Your task to perform on an android device: Open settings on Google Maps Image 0: 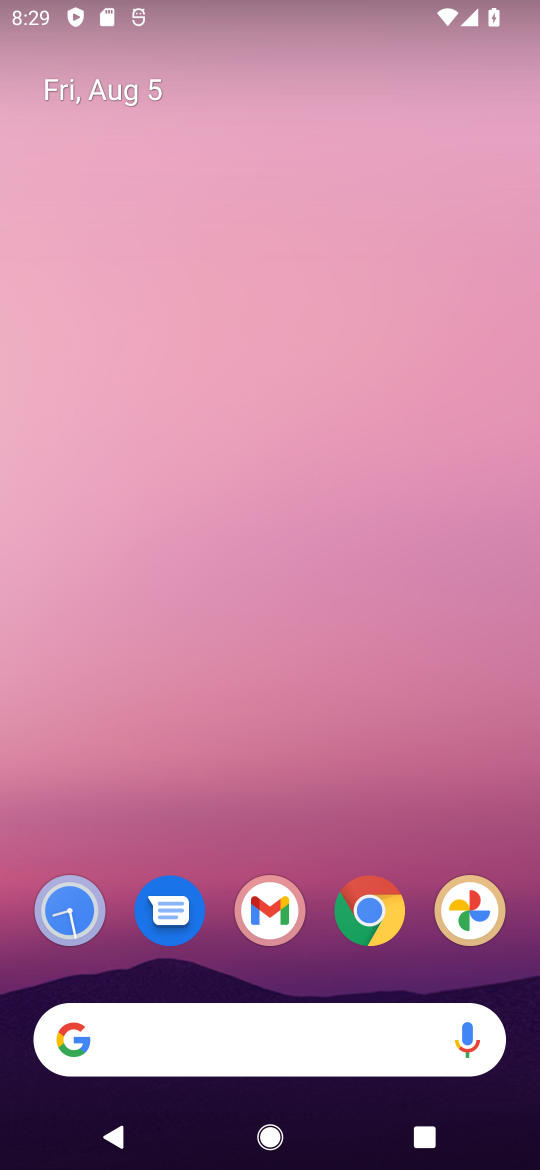
Step 0: drag from (214, 1034) to (451, 9)
Your task to perform on an android device: Open settings on Google Maps Image 1: 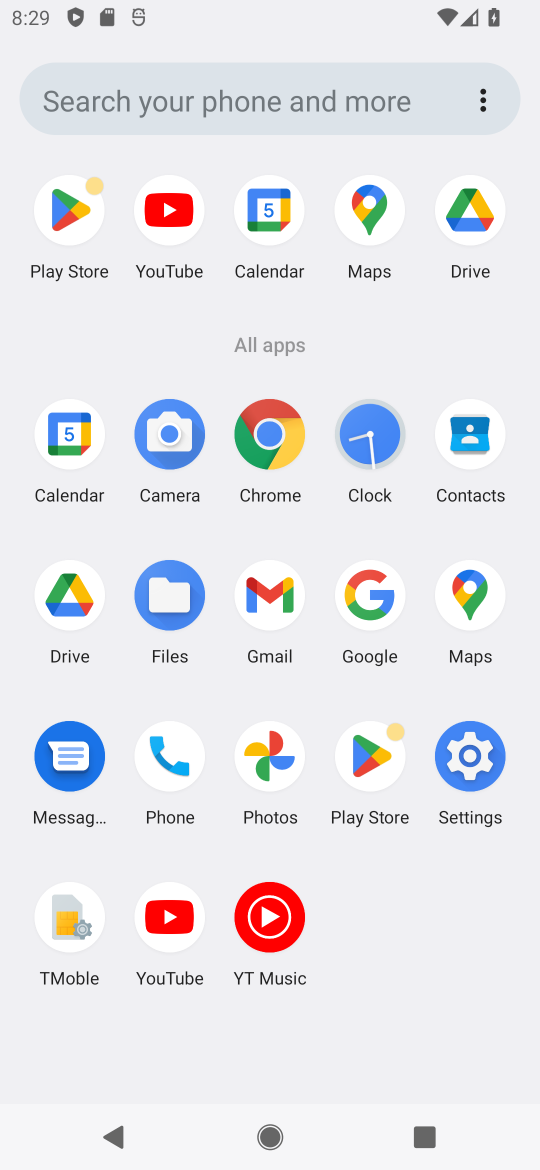
Step 1: click (469, 592)
Your task to perform on an android device: Open settings on Google Maps Image 2: 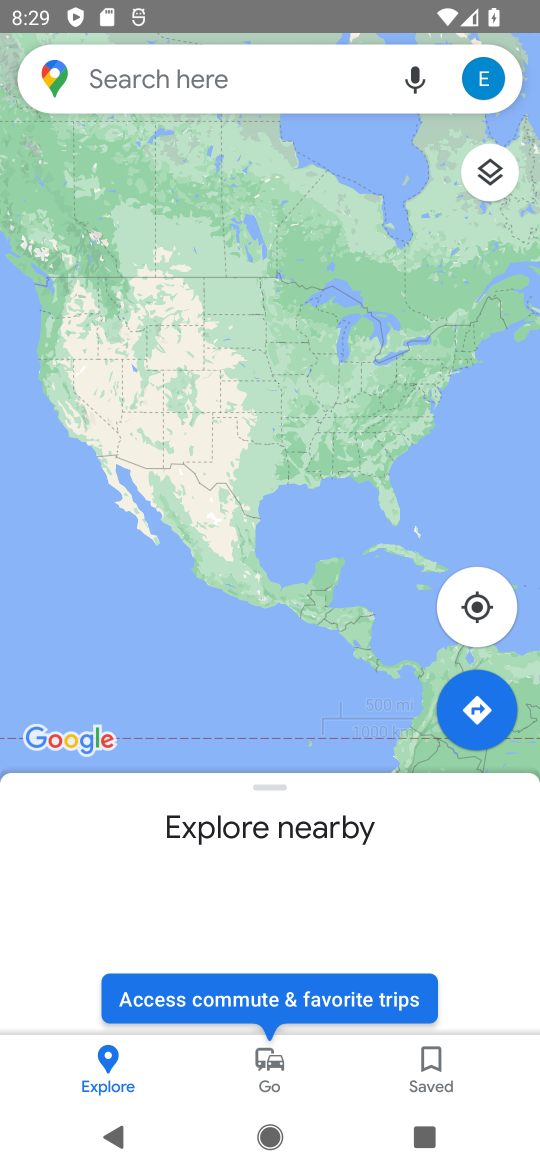
Step 2: click (479, 79)
Your task to perform on an android device: Open settings on Google Maps Image 3: 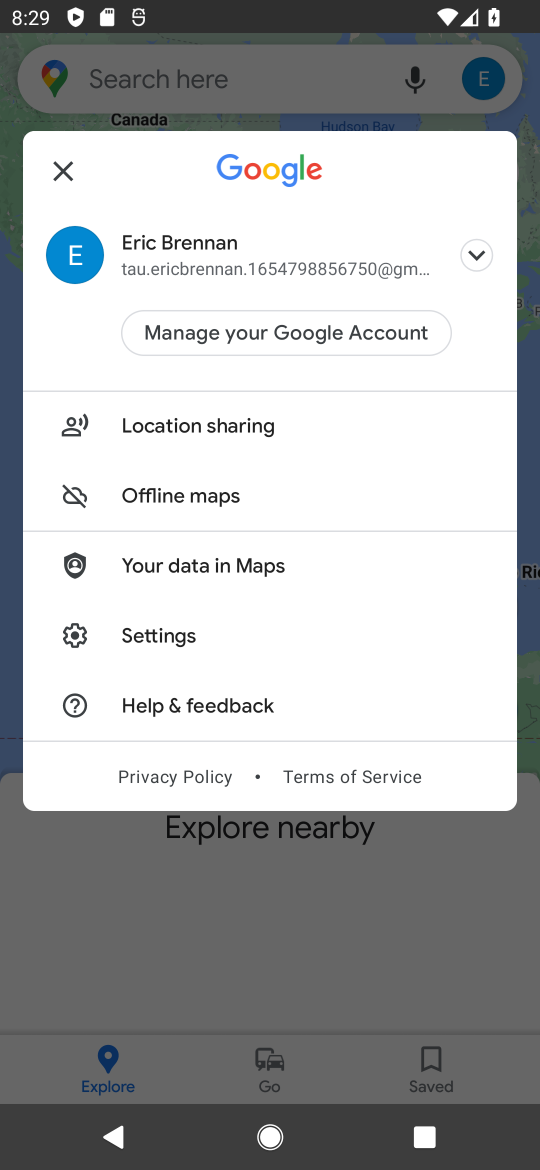
Step 3: click (175, 634)
Your task to perform on an android device: Open settings on Google Maps Image 4: 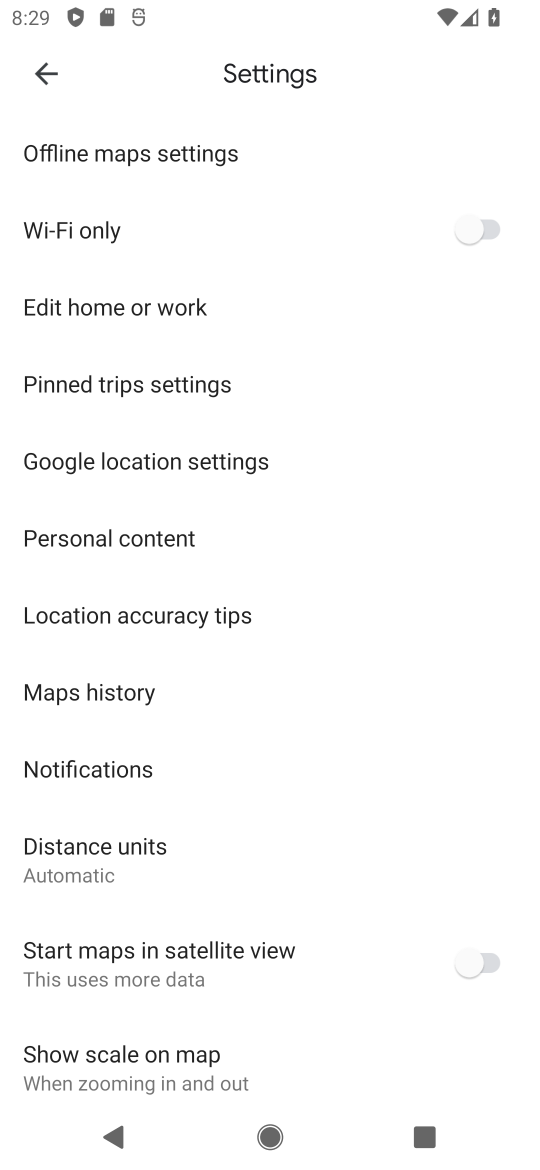
Step 4: task complete